Your task to perform on an android device: see creations saved in the google photos Image 0: 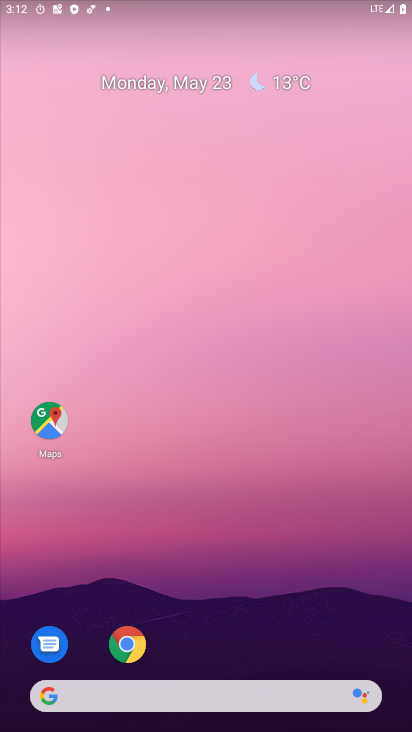
Step 0: drag from (215, 684) to (116, 94)
Your task to perform on an android device: see creations saved in the google photos Image 1: 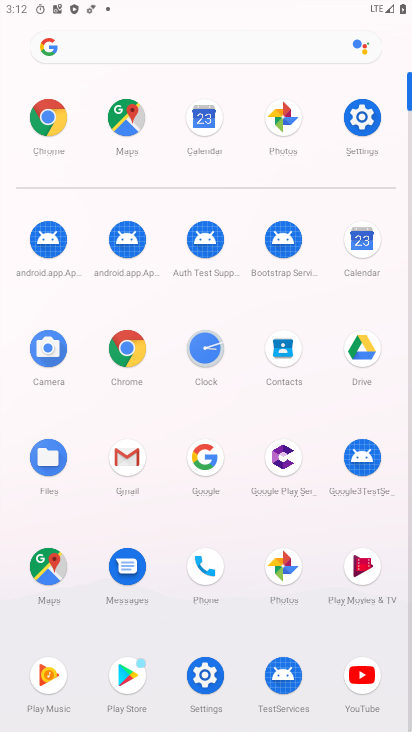
Step 1: click (282, 562)
Your task to perform on an android device: see creations saved in the google photos Image 2: 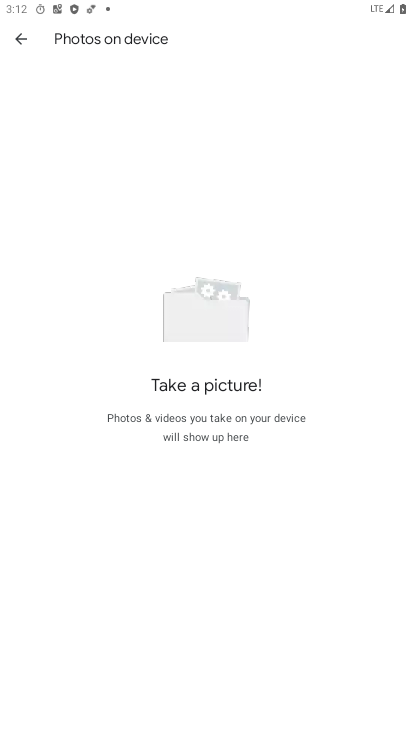
Step 2: click (12, 31)
Your task to perform on an android device: see creations saved in the google photos Image 3: 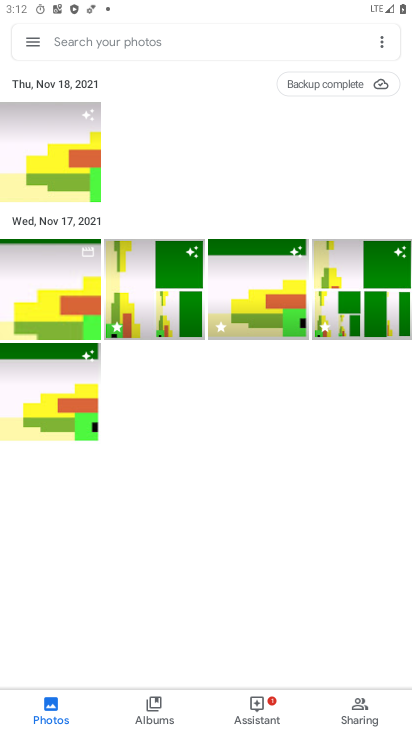
Step 3: click (146, 45)
Your task to perform on an android device: see creations saved in the google photos Image 4: 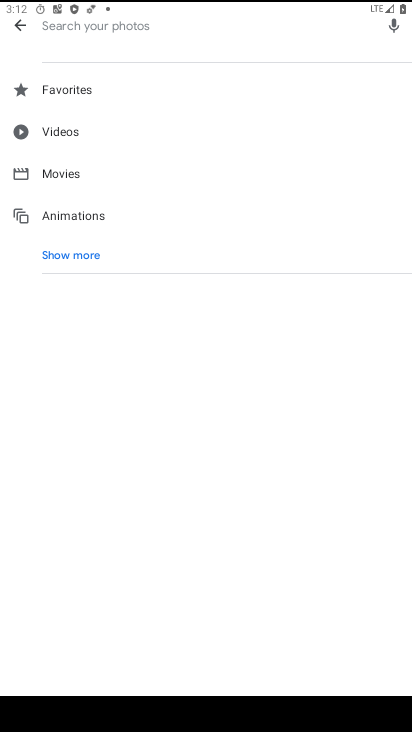
Step 4: click (68, 270)
Your task to perform on an android device: see creations saved in the google photos Image 5: 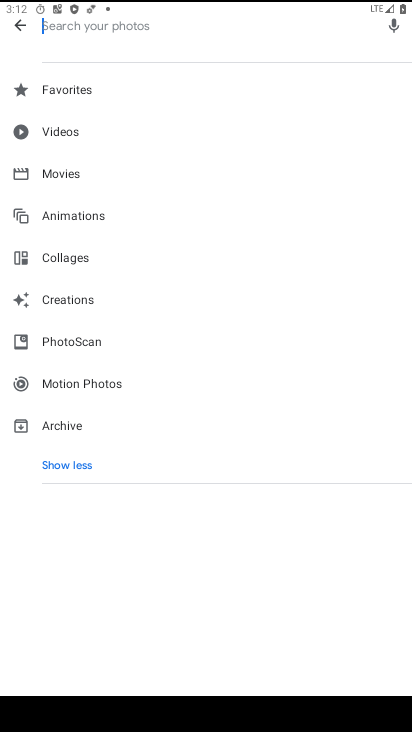
Step 5: click (65, 304)
Your task to perform on an android device: see creations saved in the google photos Image 6: 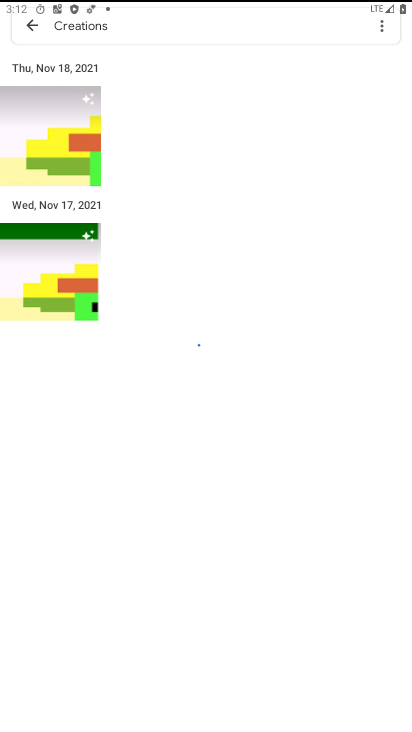
Step 6: task complete